Your task to perform on an android device: Go to accessibility settings Image 0: 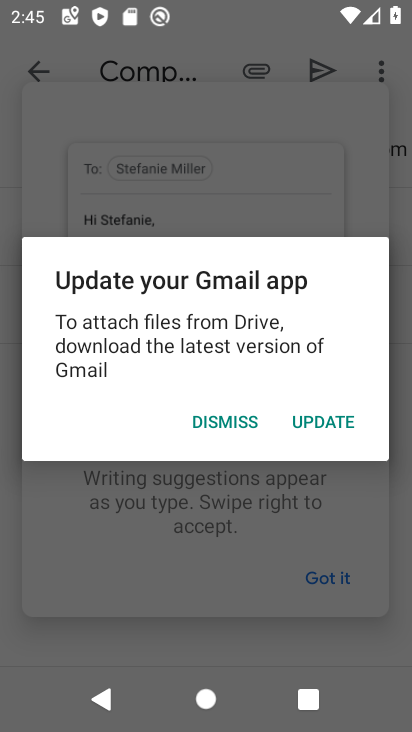
Step 0: press back button
Your task to perform on an android device: Go to accessibility settings Image 1: 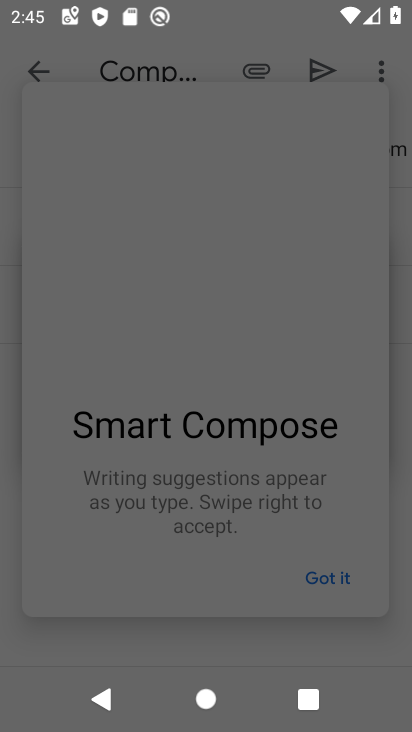
Step 1: press back button
Your task to perform on an android device: Go to accessibility settings Image 2: 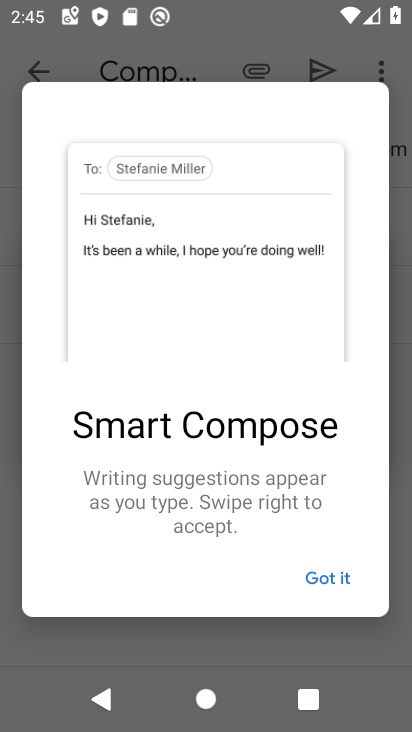
Step 2: press back button
Your task to perform on an android device: Go to accessibility settings Image 3: 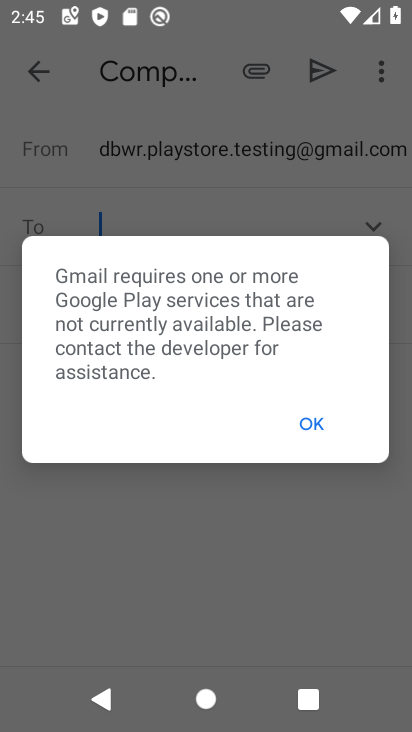
Step 3: press back button
Your task to perform on an android device: Go to accessibility settings Image 4: 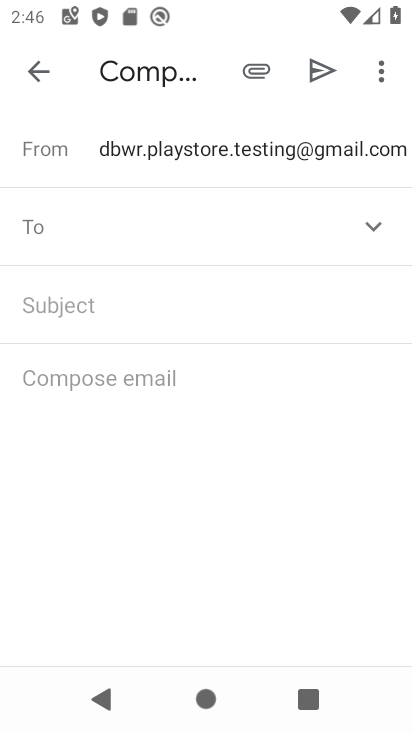
Step 4: press back button
Your task to perform on an android device: Go to accessibility settings Image 5: 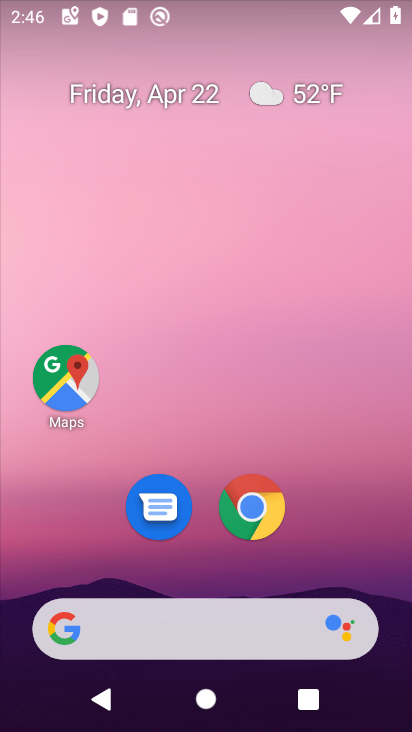
Step 5: drag from (201, 449) to (313, 67)
Your task to perform on an android device: Go to accessibility settings Image 6: 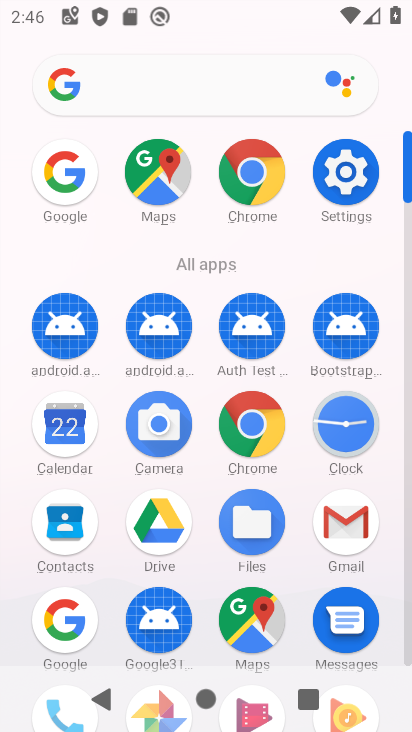
Step 6: click (349, 178)
Your task to perform on an android device: Go to accessibility settings Image 7: 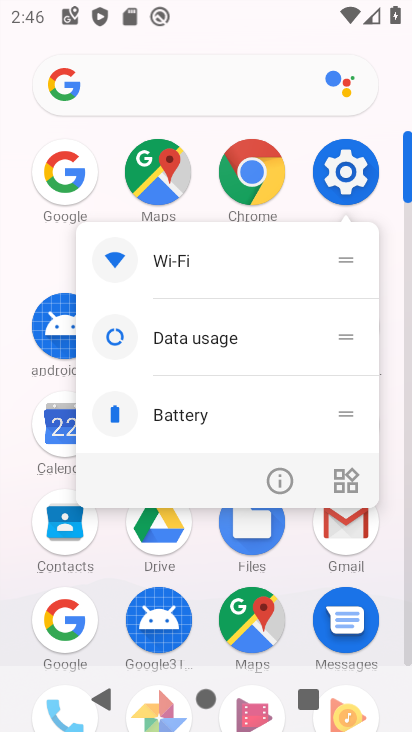
Step 7: click (354, 178)
Your task to perform on an android device: Go to accessibility settings Image 8: 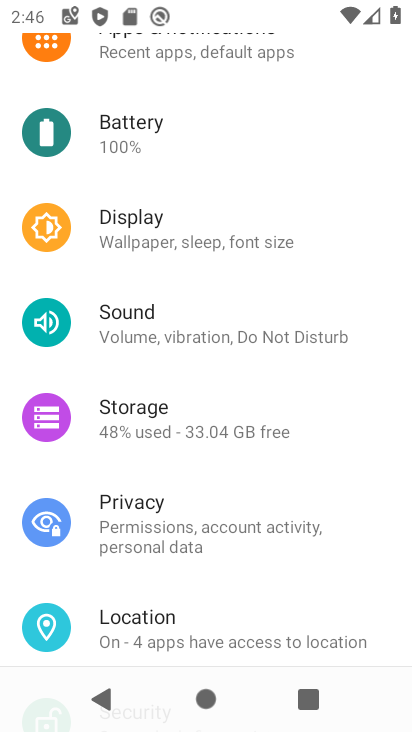
Step 8: drag from (210, 486) to (354, 92)
Your task to perform on an android device: Go to accessibility settings Image 9: 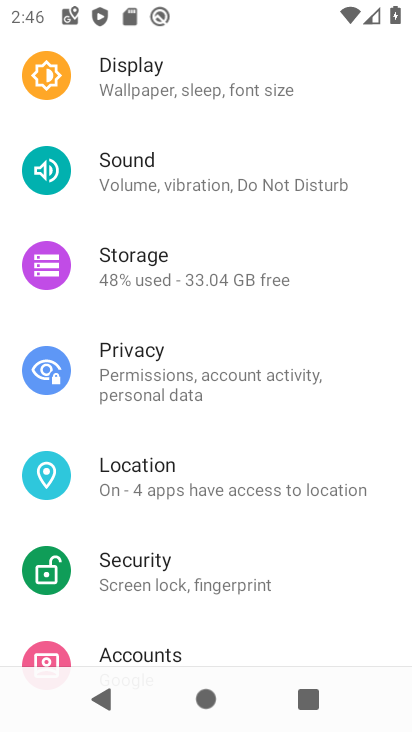
Step 9: drag from (197, 588) to (320, 148)
Your task to perform on an android device: Go to accessibility settings Image 10: 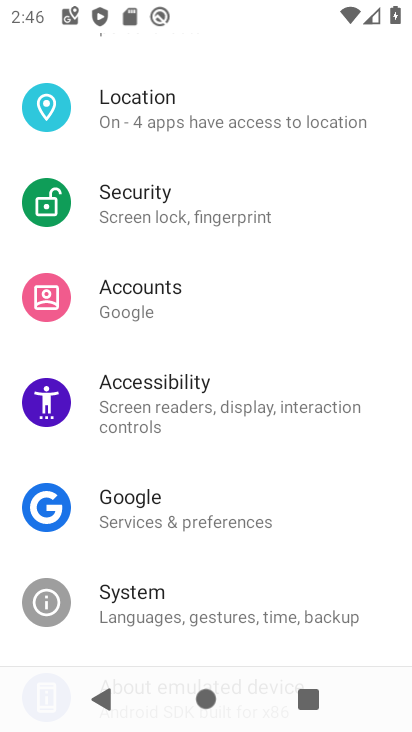
Step 10: click (232, 402)
Your task to perform on an android device: Go to accessibility settings Image 11: 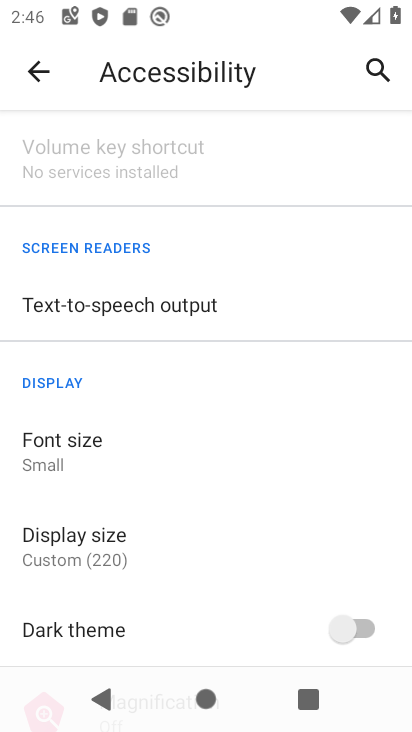
Step 11: task complete